Your task to perform on an android device: Open wifi settings Image 0: 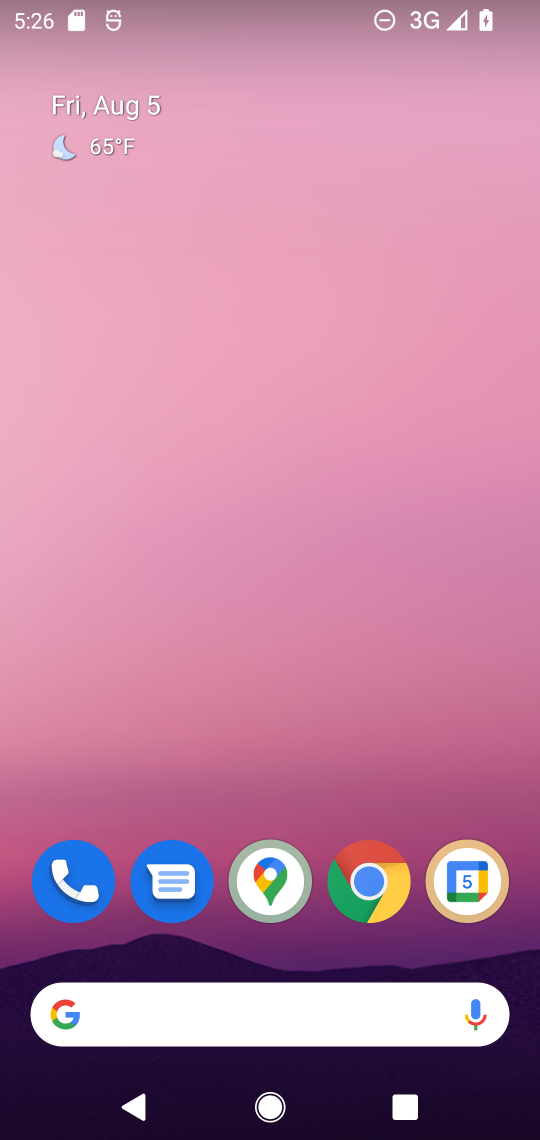
Step 0: drag from (436, 950) to (306, 96)
Your task to perform on an android device: Open wifi settings Image 1: 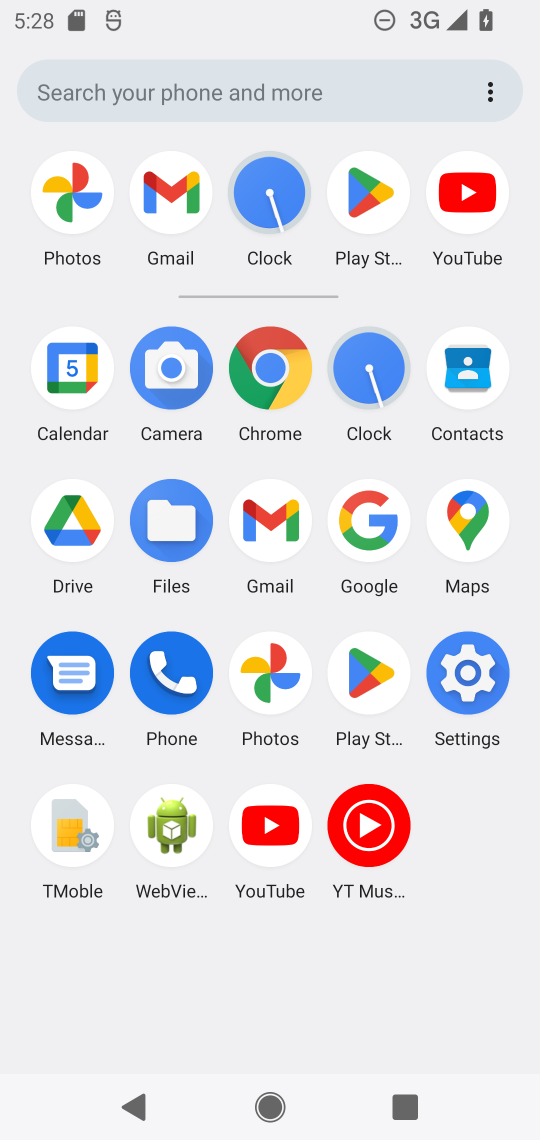
Step 1: click (459, 683)
Your task to perform on an android device: Open wifi settings Image 2: 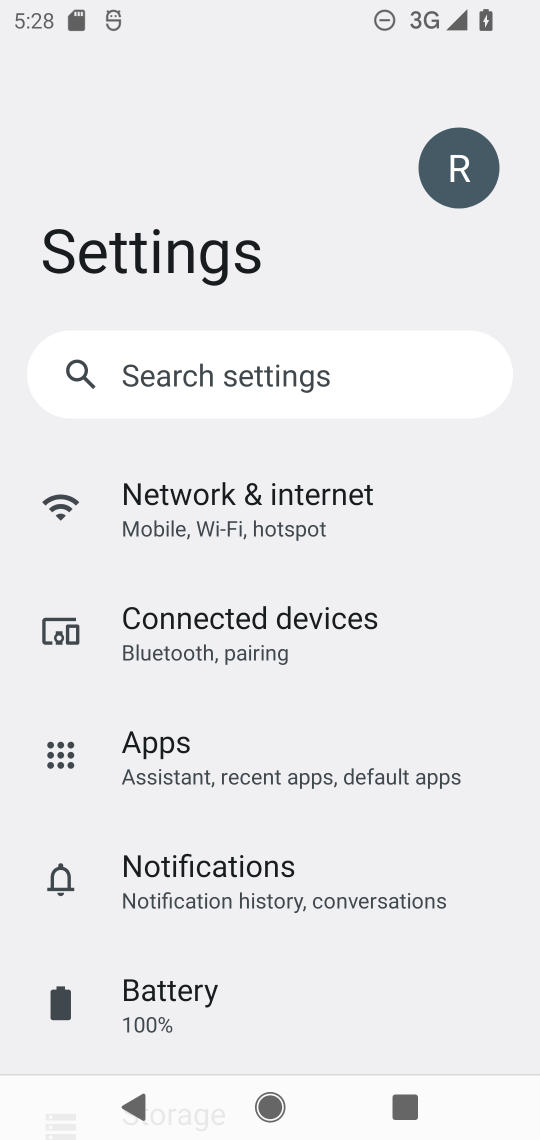
Step 2: task complete